Your task to perform on an android device: What is the recent news? Image 0: 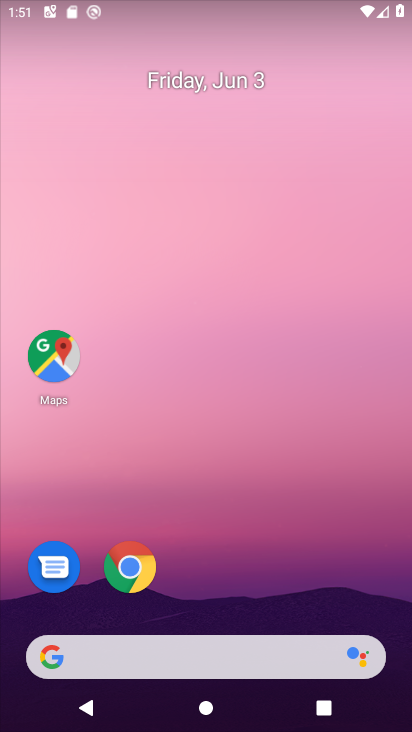
Step 0: click (131, 561)
Your task to perform on an android device: What is the recent news? Image 1: 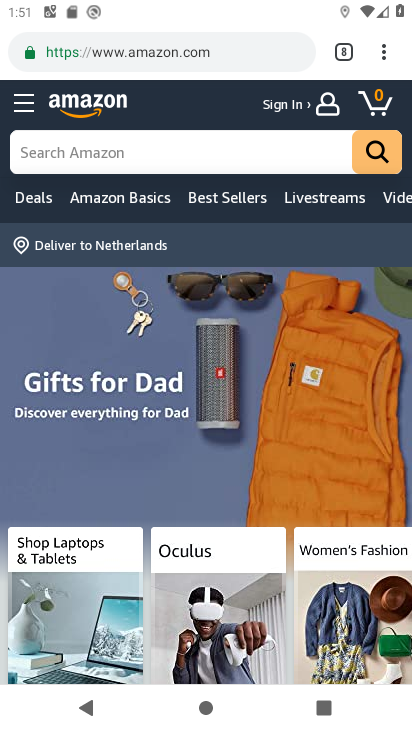
Step 1: click (375, 39)
Your task to perform on an android device: What is the recent news? Image 2: 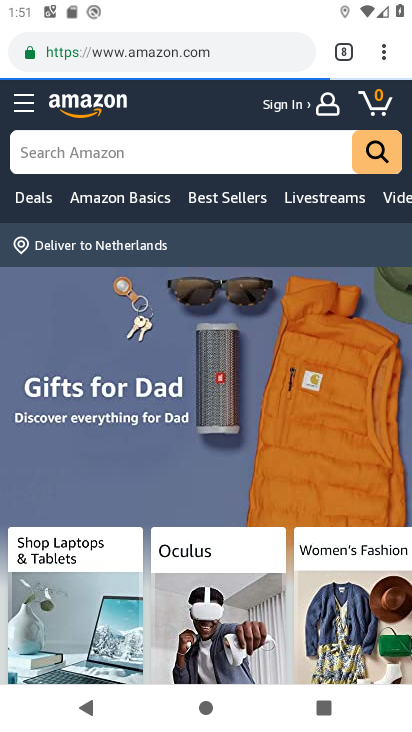
Step 2: click (394, 57)
Your task to perform on an android device: What is the recent news? Image 3: 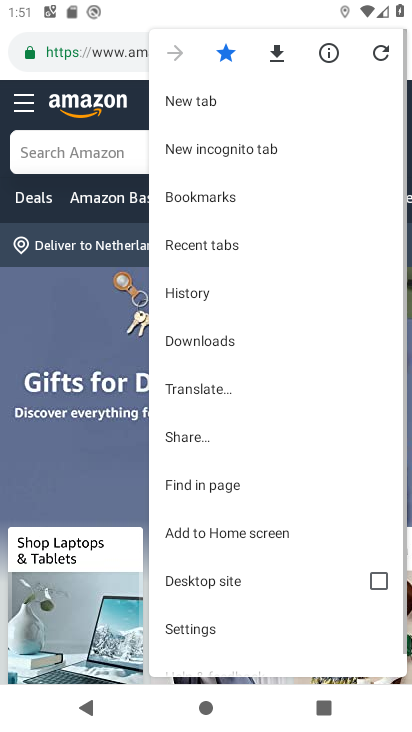
Step 3: click (207, 91)
Your task to perform on an android device: What is the recent news? Image 4: 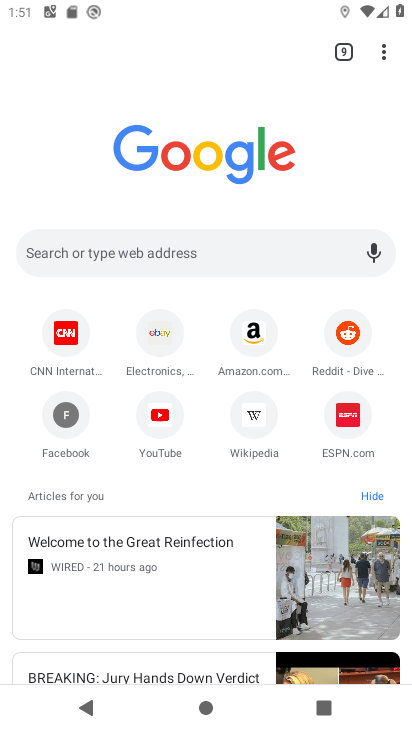
Step 4: drag from (96, 731) to (410, 107)
Your task to perform on an android device: What is the recent news? Image 5: 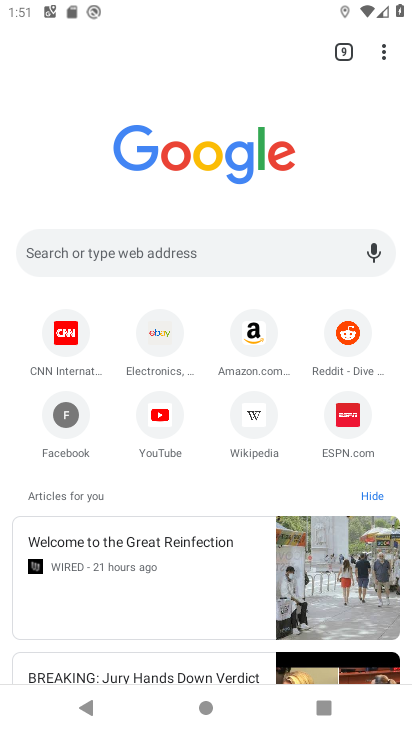
Step 5: click (195, 245)
Your task to perform on an android device: What is the recent news? Image 6: 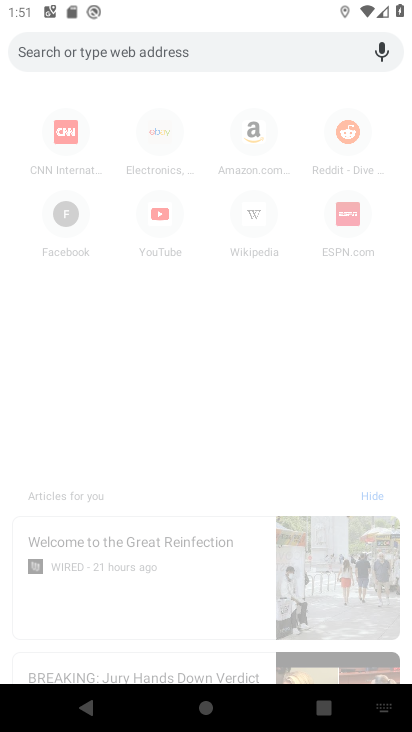
Step 6: type "What is the recent news?"
Your task to perform on an android device: What is the recent news? Image 7: 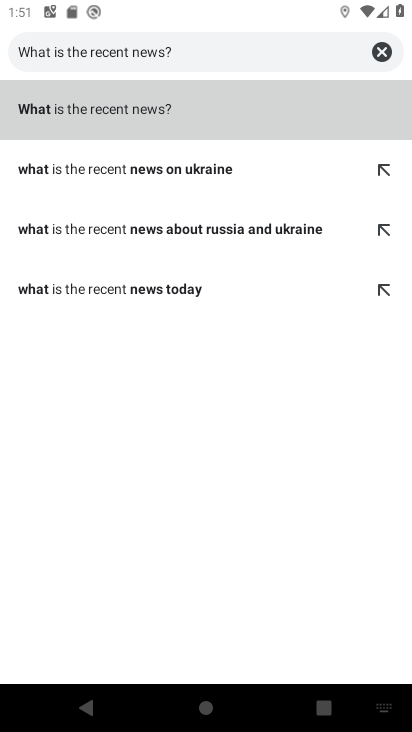
Step 7: click (263, 108)
Your task to perform on an android device: What is the recent news? Image 8: 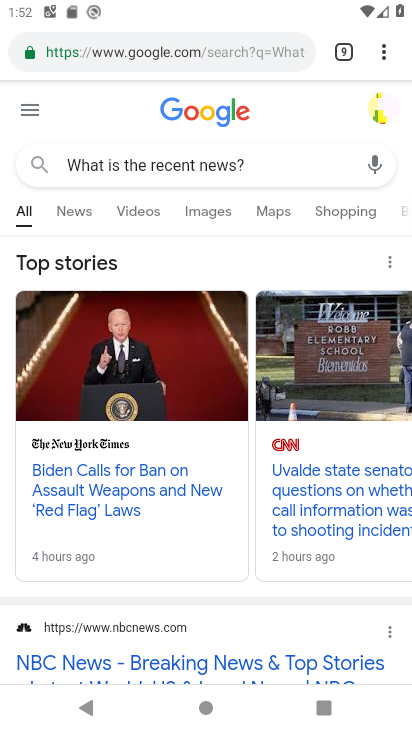
Step 8: task complete